Your task to perform on an android device: When is my next meeting? Image 0: 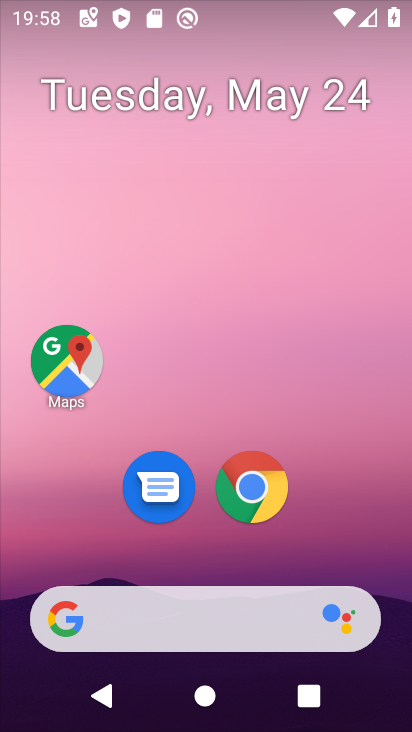
Step 0: drag from (4, 727) to (246, 207)
Your task to perform on an android device: When is my next meeting? Image 1: 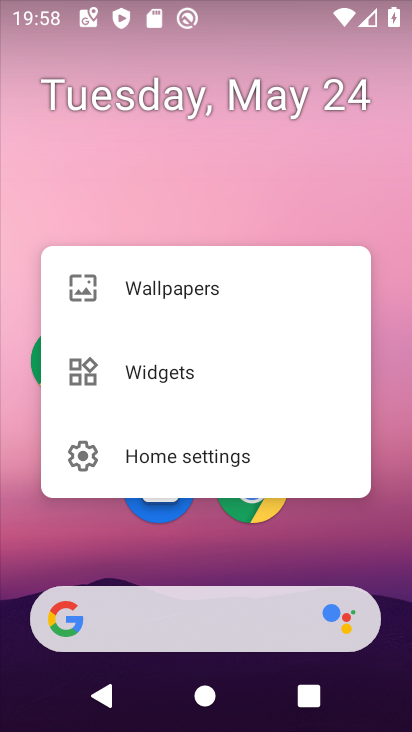
Step 1: press home button
Your task to perform on an android device: When is my next meeting? Image 2: 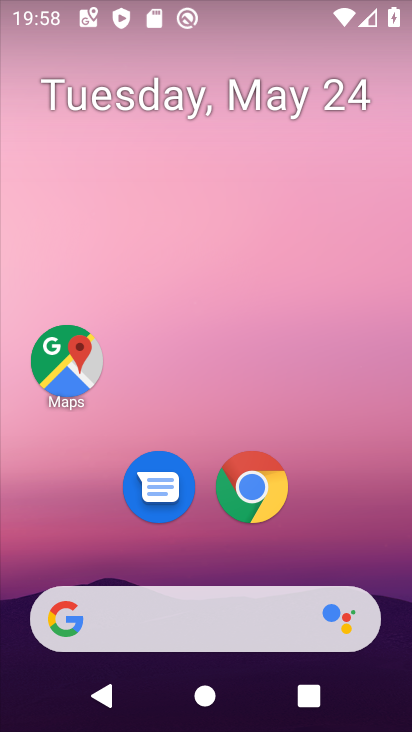
Step 2: drag from (127, 459) to (310, 176)
Your task to perform on an android device: When is my next meeting? Image 3: 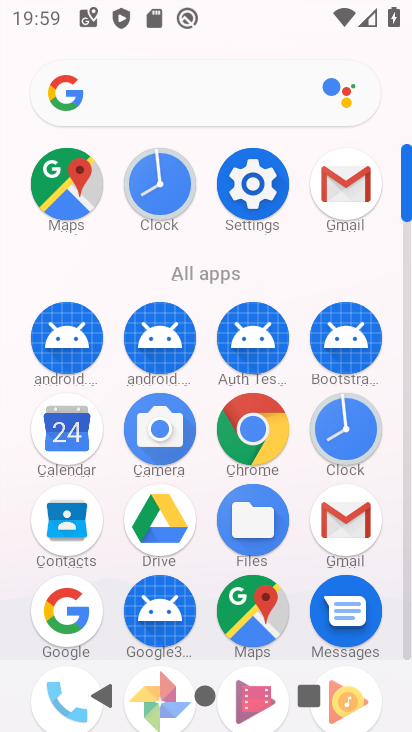
Step 3: click (64, 437)
Your task to perform on an android device: When is my next meeting? Image 4: 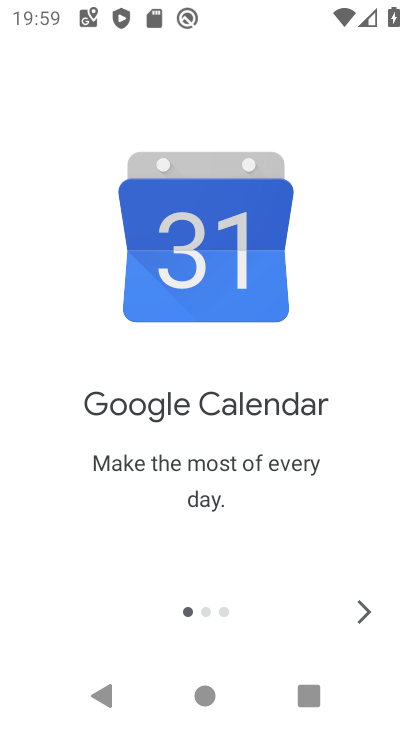
Step 4: click (364, 611)
Your task to perform on an android device: When is my next meeting? Image 5: 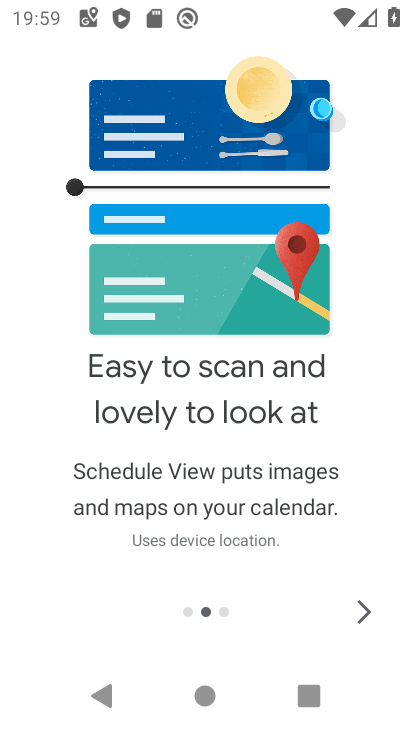
Step 5: click (364, 611)
Your task to perform on an android device: When is my next meeting? Image 6: 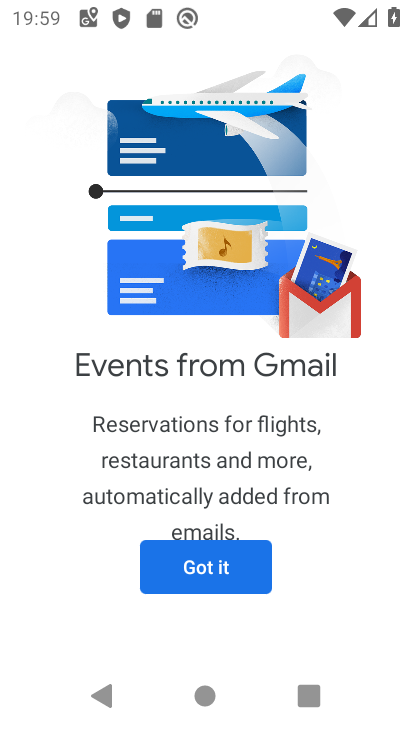
Step 6: click (179, 563)
Your task to perform on an android device: When is my next meeting? Image 7: 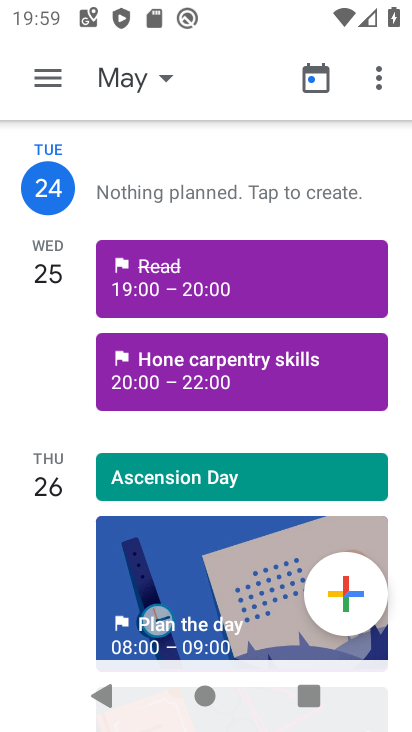
Step 7: click (125, 70)
Your task to perform on an android device: When is my next meeting? Image 8: 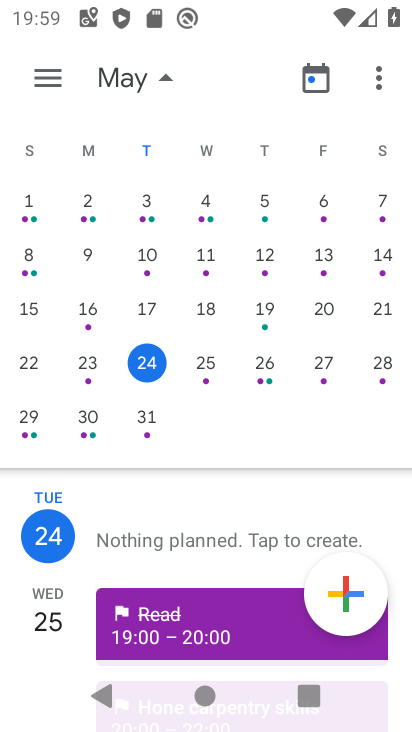
Step 8: task complete